Your task to perform on an android device: Show me popular games on the Play Store Image 0: 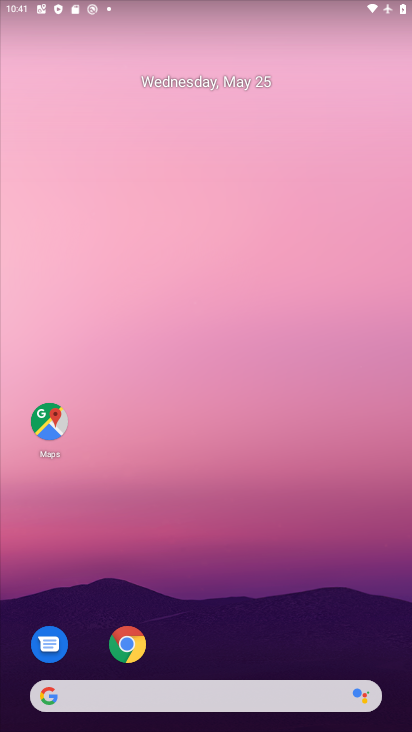
Step 0: drag from (218, 618) to (253, 169)
Your task to perform on an android device: Show me popular games on the Play Store Image 1: 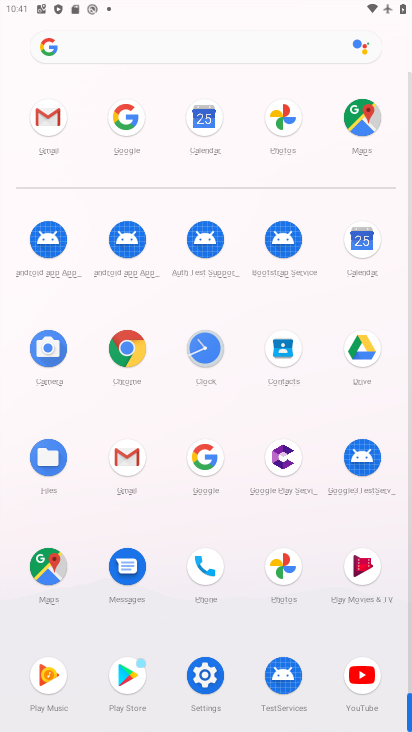
Step 1: click (132, 675)
Your task to perform on an android device: Show me popular games on the Play Store Image 2: 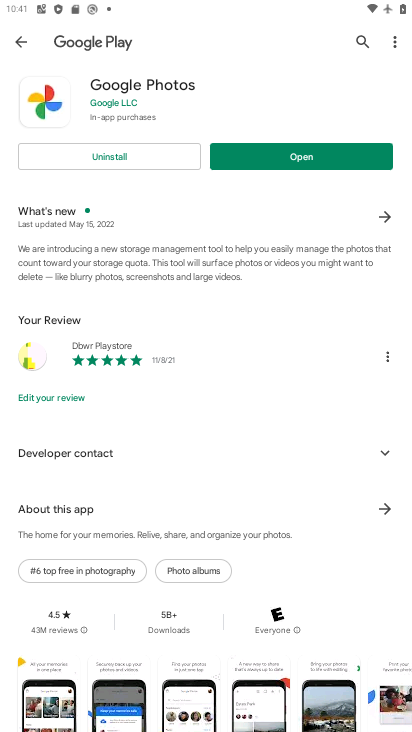
Step 2: press back button
Your task to perform on an android device: Show me popular games on the Play Store Image 3: 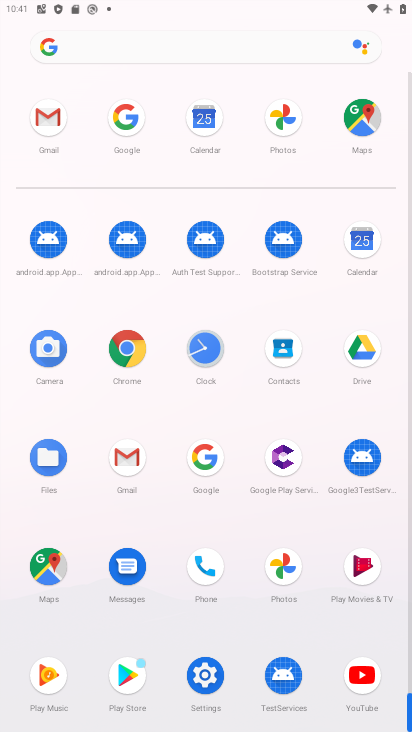
Step 3: click (114, 682)
Your task to perform on an android device: Show me popular games on the Play Store Image 4: 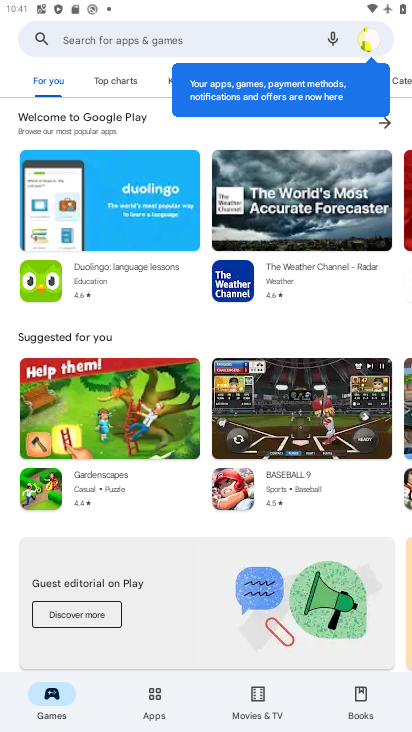
Step 4: drag from (257, 500) to (327, 94)
Your task to perform on an android device: Show me popular games on the Play Store Image 5: 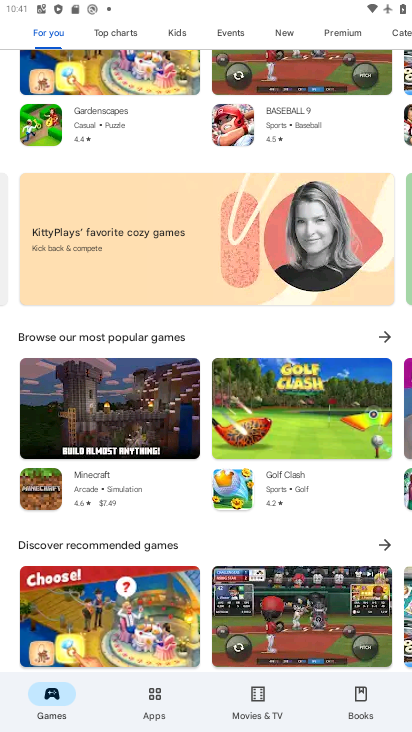
Step 5: click (341, 331)
Your task to perform on an android device: Show me popular games on the Play Store Image 6: 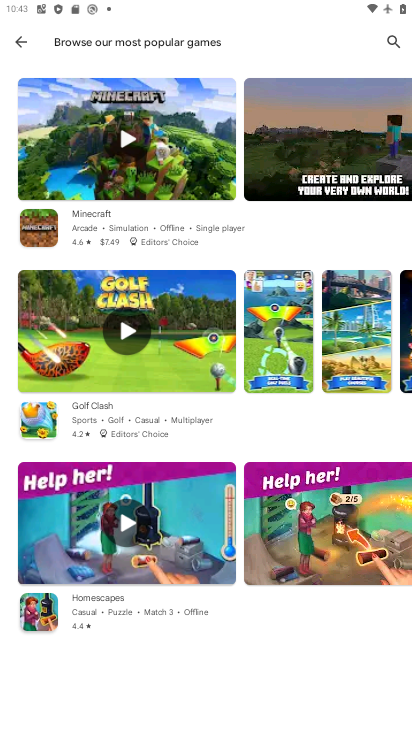
Step 6: task complete